Your task to perform on an android device: Open the map Image 0: 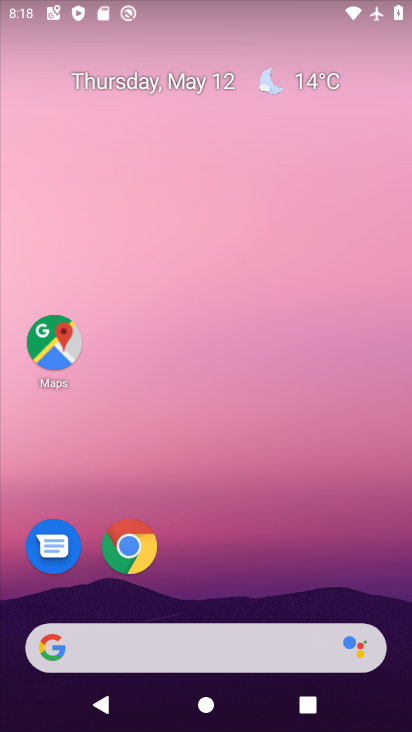
Step 0: click (58, 367)
Your task to perform on an android device: Open the map Image 1: 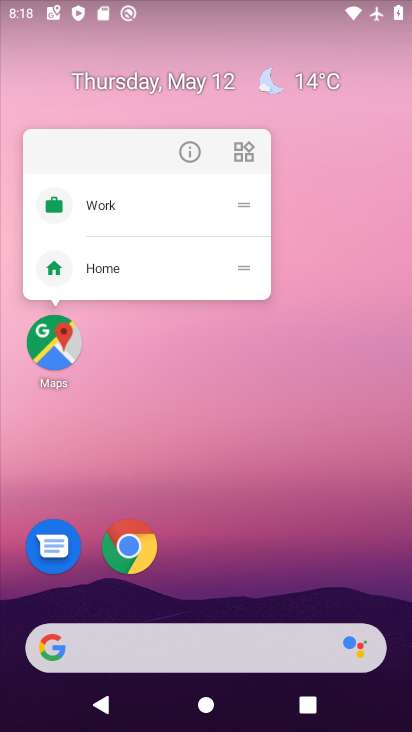
Step 1: click (55, 352)
Your task to perform on an android device: Open the map Image 2: 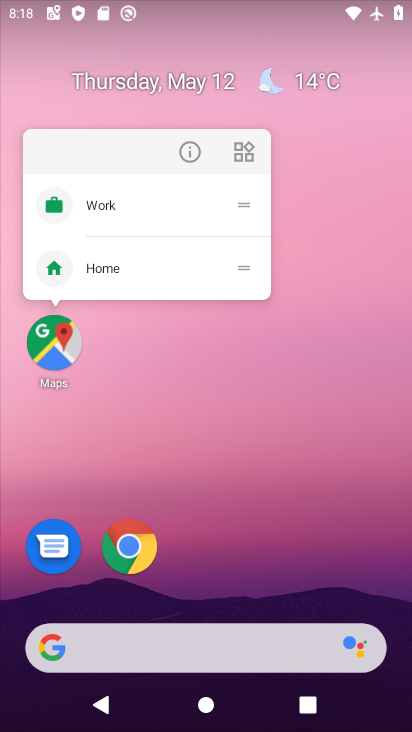
Step 2: click (61, 351)
Your task to perform on an android device: Open the map Image 3: 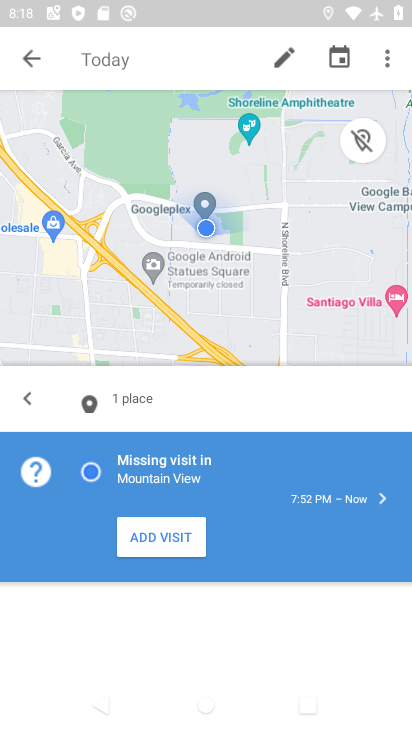
Step 3: task complete